Your task to perform on an android device: change alarm snooze length Image 0: 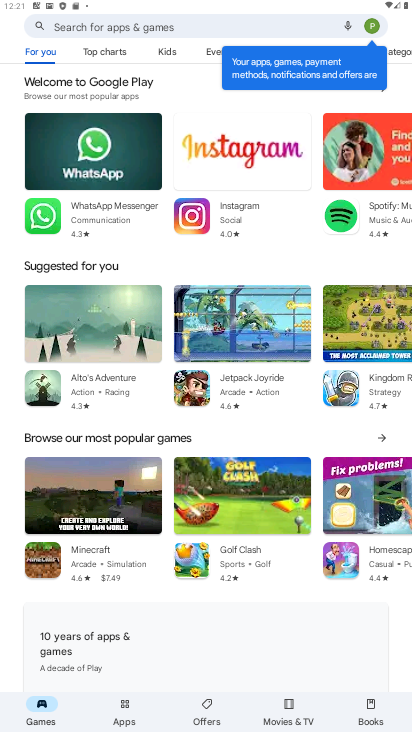
Step 0: press home button
Your task to perform on an android device: change alarm snooze length Image 1: 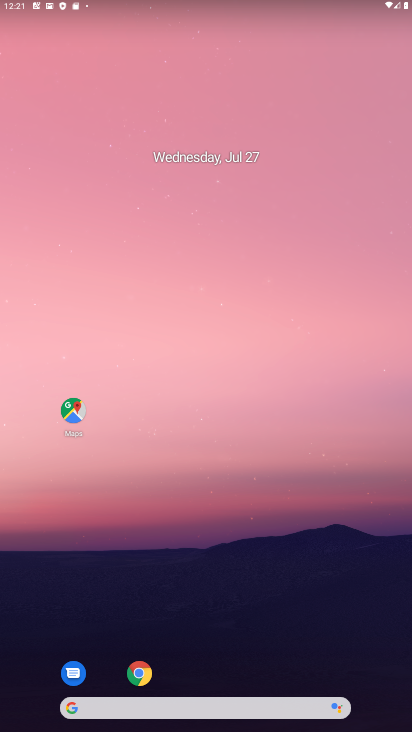
Step 1: drag from (199, 679) to (206, 187)
Your task to perform on an android device: change alarm snooze length Image 2: 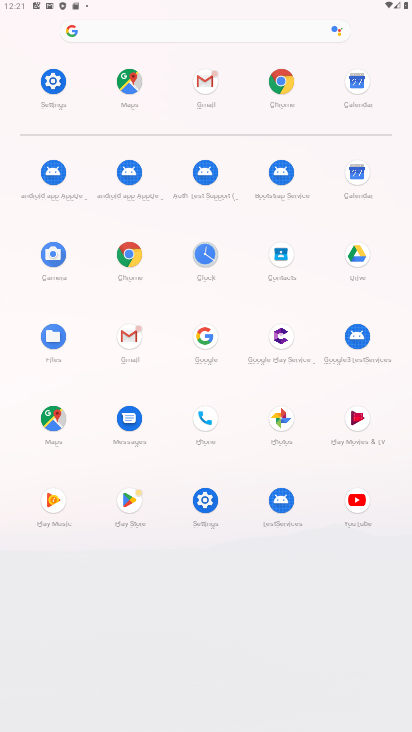
Step 2: click (206, 249)
Your task to perform on an android device: change alarm snooze length Image 3: 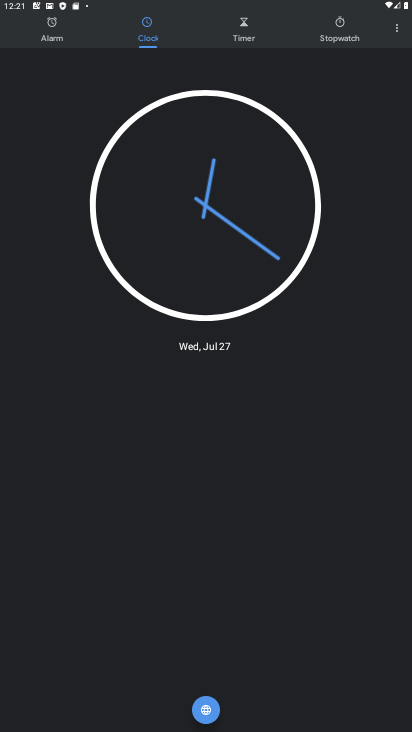
Step 3: click (397, 26)
Your task to perform on an android device: change alarm snooze length Image 4: 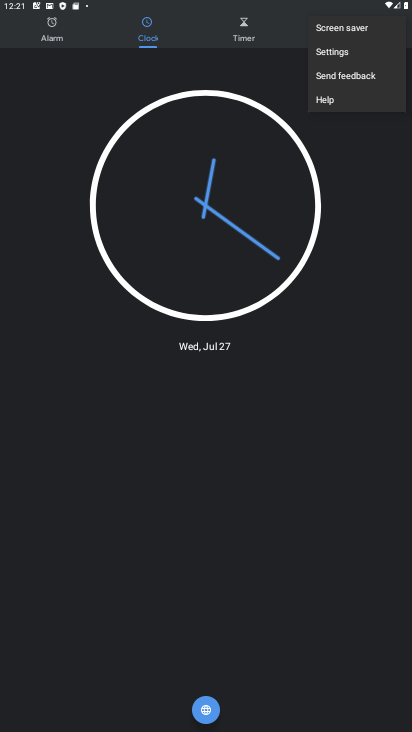
Step 4: click (335, 49)
Your task to perform on an android device: change alarm snooze length Image 5: 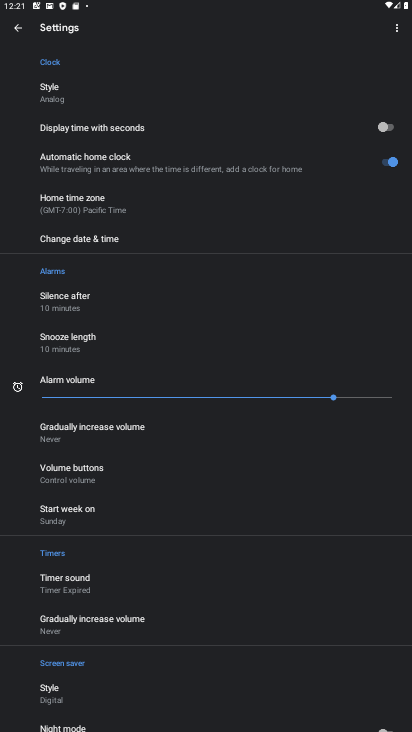
Step 5: click (109, 343)
Your task to perform on an android device: change alarm snooze length Image 6: 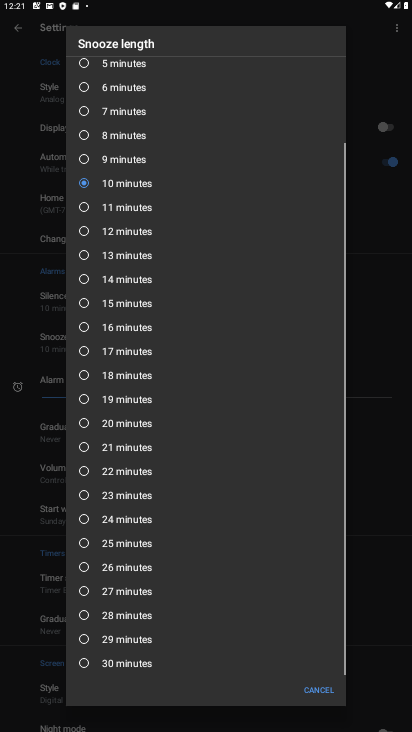
Step 6: click (128, 425)
Your task to perform on an android device: change alarm snooze length Image 7: 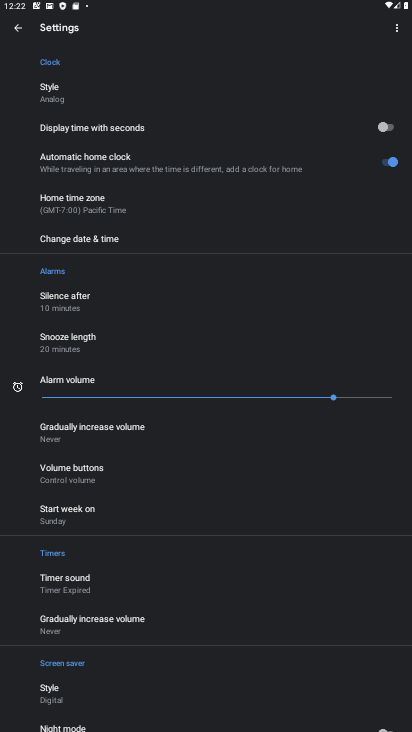
Step 7: task complete